Your task to perform on an android device: snooze an email in the gmail app Image 0: 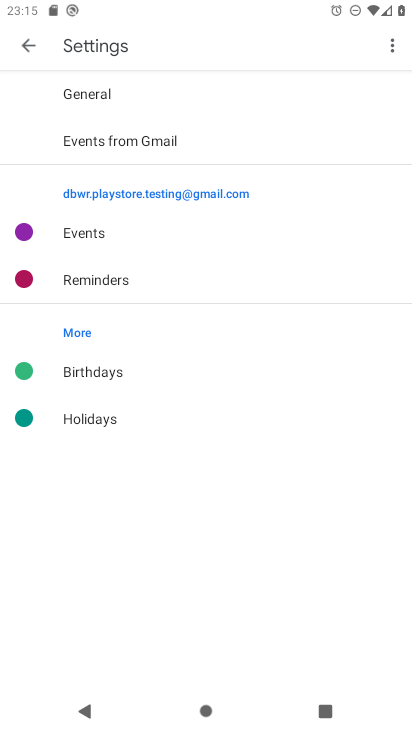
Step 0: press home button
Your task to perform on an android device: snooze an email in the gmail app Image 1: 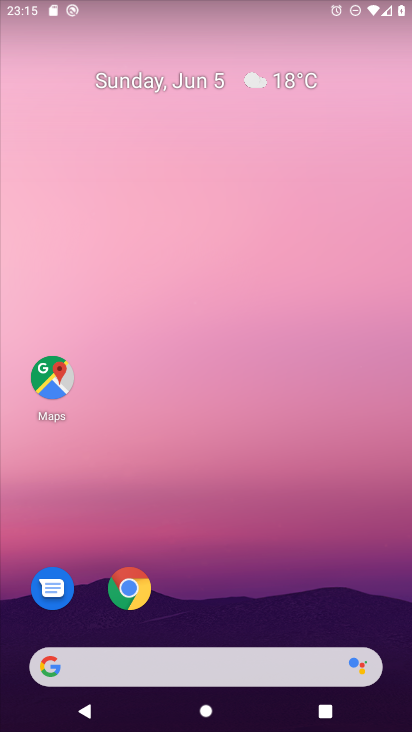
Step 1: drag from (385, 577) to (342, 137)
Your task to perform on an android device: snooze an email in the gmail app Image 2: 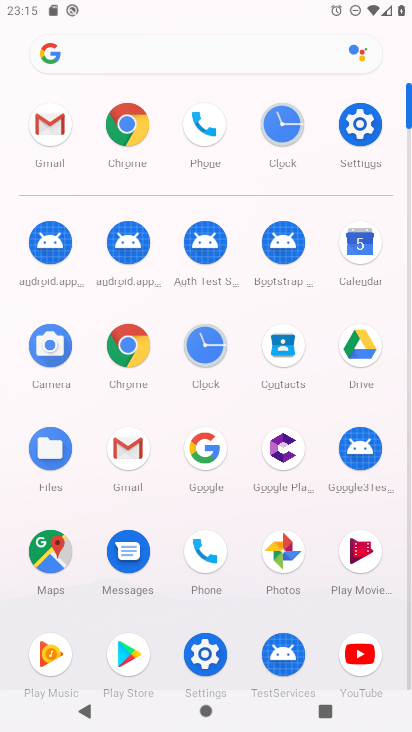
Step 2: click (134, 459)
Your task to perform on an android device: snooze an email in the gmail app Image 3: 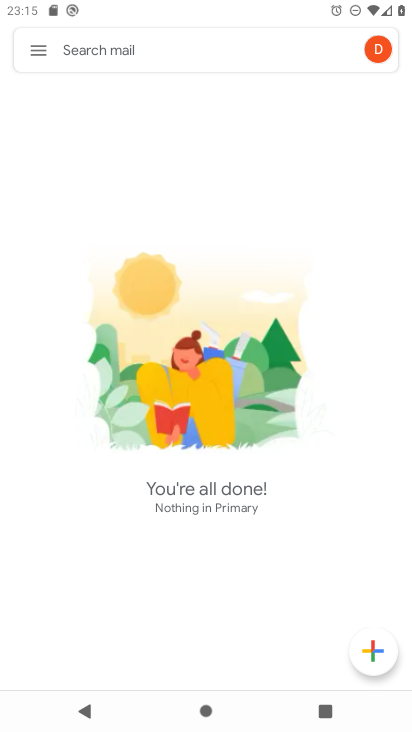
Step 3: click (38, 48)
Your task to perform on an android device: snooze an email in the gmail app Image 4: 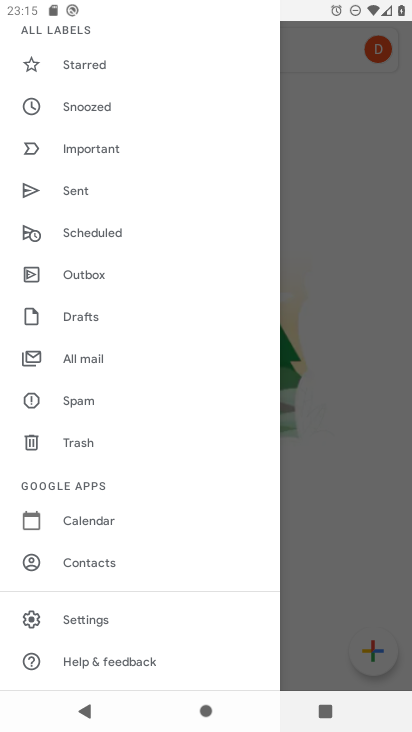
Step 4: click (127, 117)
Your task to perform on an android device: snooze an email in the gmail app Image 5: 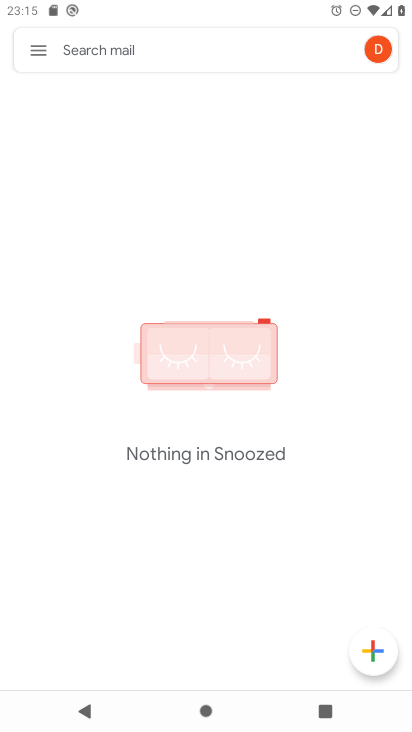
Step 5: task complete